Your task to perform on an android device: Open Google Chrome and click the shortcut for Amazon.com Image 0: 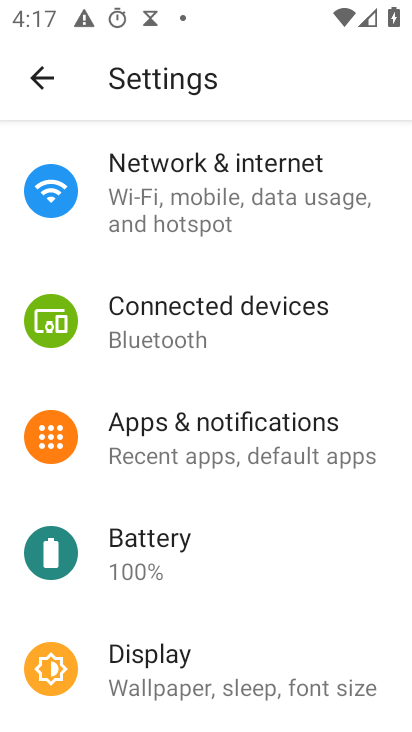
Step 0: click (38, 91)
Your task to perform on an android device: Open Google Chrome and click the shortcut for Amazon.com Image 1: 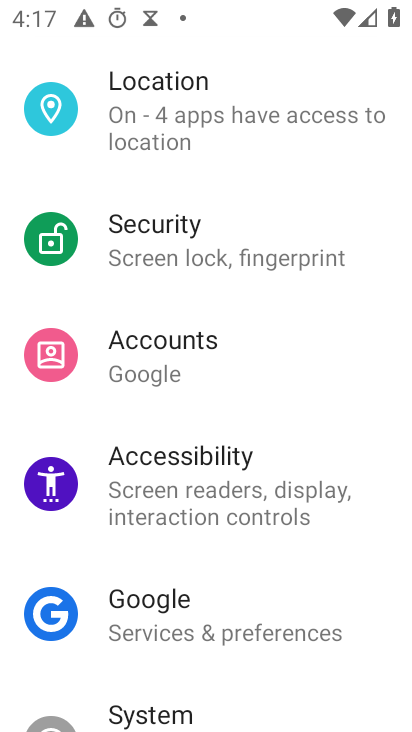
Step 1: press back button
Your task to perform on an android device: Open Google Chrome and click the shortcut for Amazon.com Image 2: 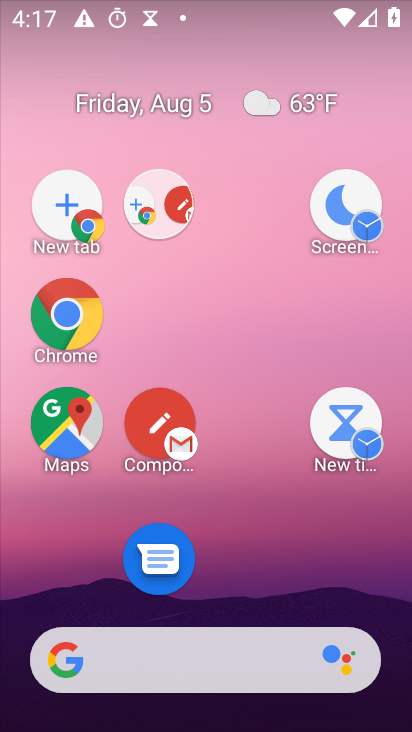
Step 2: drag from (189, 460) to (147, 85)
Your task to perform on an android device: Open Google Chrome and click the shortcut for Amazon.com Image 3: 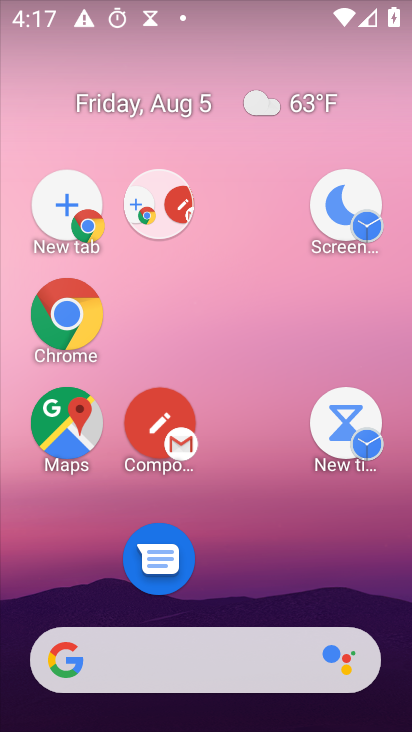
Step 3: drag from (216, 492) to (195, 144)
Your task to perform on an android device: Open Google Chrome and click the shortcut for Amazon.com Image 4: 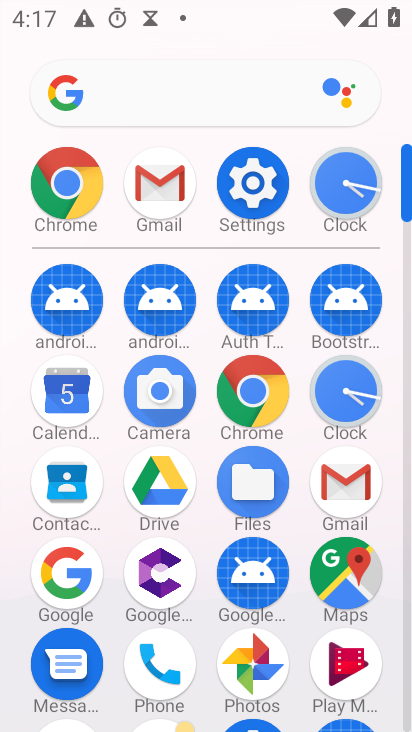
Step 4: drag from (197, 374) to (156, 219)
Your task to perform on an android device: Open Google Chrome and click the shortcut for Amazon.com Image 5: 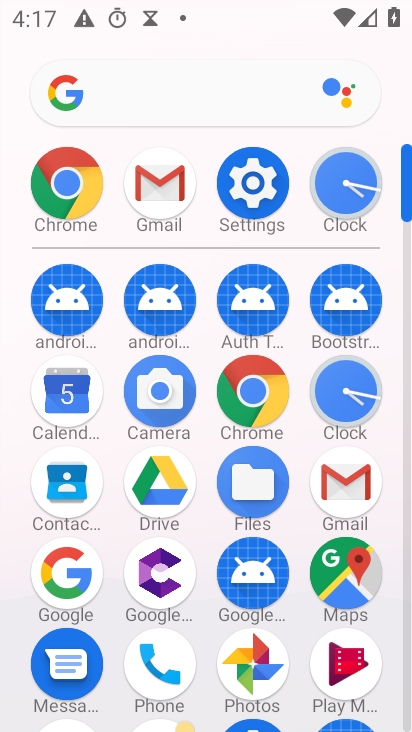
Step 5: click (79, 193)
Your task to perform on an android device: Open Google Chrome and click the shortcut for Amazon.com Image 6: 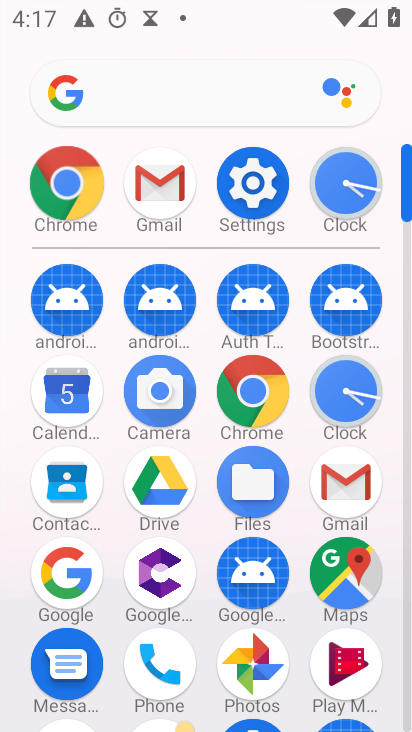
Step 6: click (79, 193)
Your task to perform on an android device: Open Google Chrome and click the shortcut for Amazon.com Image 7: 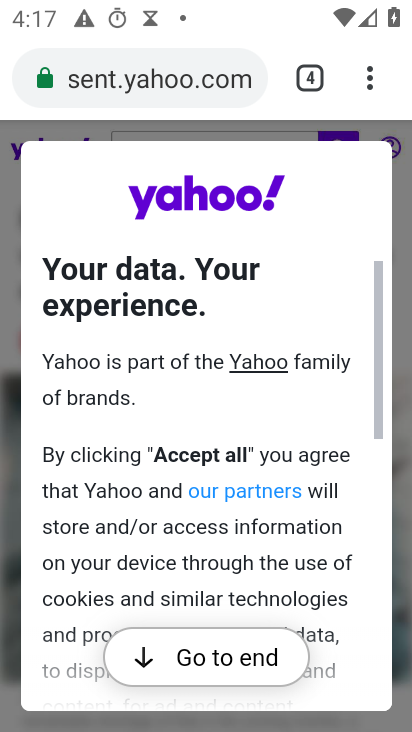
Step 7: click (359, 75)
Your task to perform on an android device: Open Google Chrome and click the shortcut for Amazon.com Image 8: 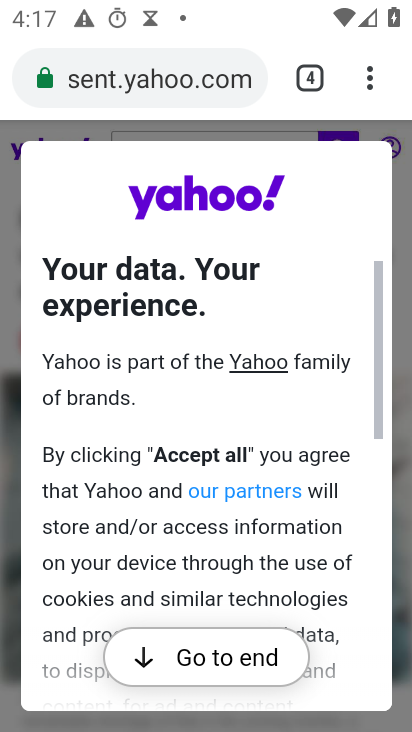
Step 8: drag from (365, 73) to (96, 144)
Your task to perform on an android device: Open Google Chrome and click the shortcut for Amazon.com Image 9: 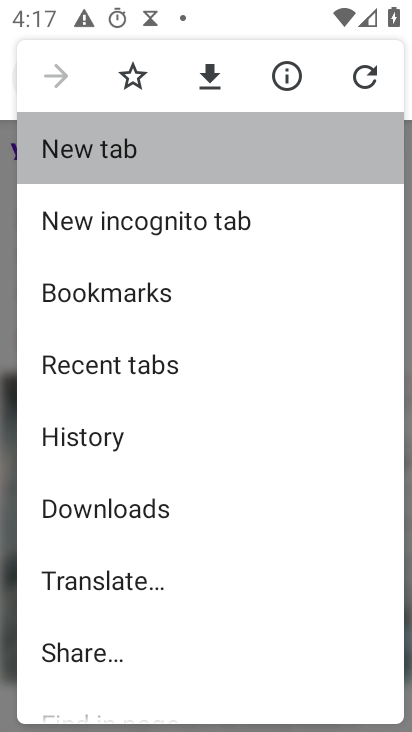
Step 9: click (100, 155)
Your task to perform on an android device: Open Google Chrome and click the shortcut for Amazon.com Image 10: 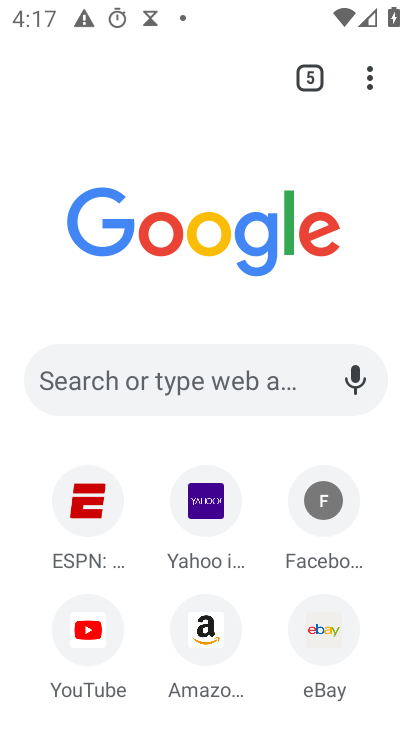
Step 10: click (184, 631)
Your task to perform on an android device: Open Google Chrome and click the shortcut for Amazon.com Image 11: 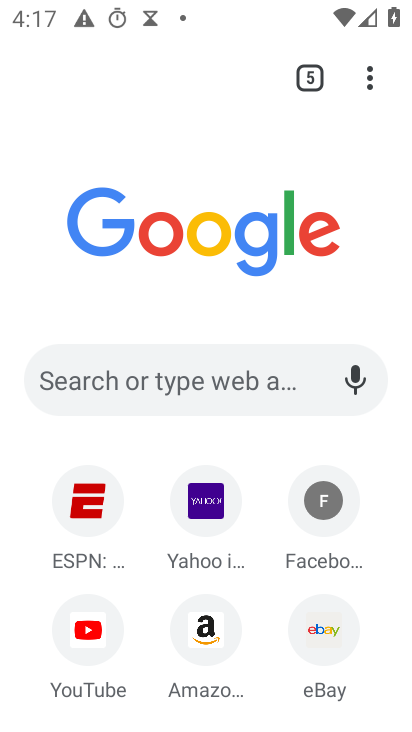
Step 11: click (185, 638)
Your task to perform on an android device: Open Google Chrome and click the shortcut for Amazon.com Image 12: 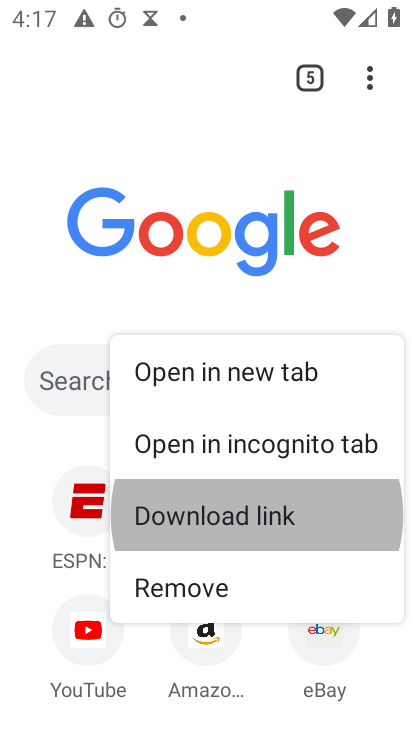
Step 12: click (183, 629)
Your task to perform on an android device: Open Google Chrome and click the shortcut for Amazon.com Image 13: 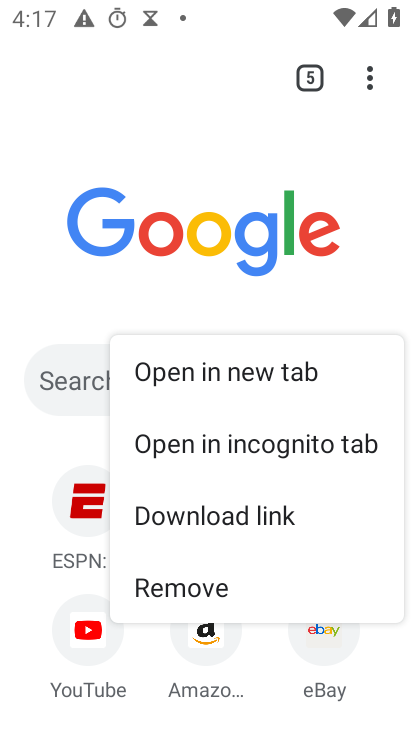
Step 13: click (194, 628)
Your task to perform on an android device: Open Google Chrome and click the shortcut for Amazon.com Image 14: 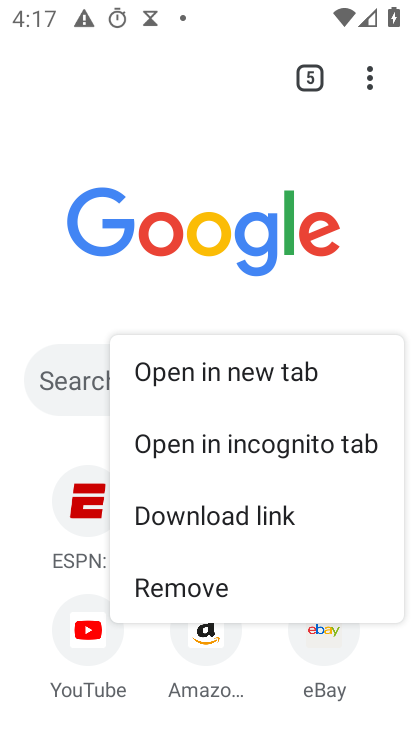
Step 14: click (194, 622)
Your task to perform on an android device: Open Google Chrome and click the shortcut for Amazon.com Image 15: 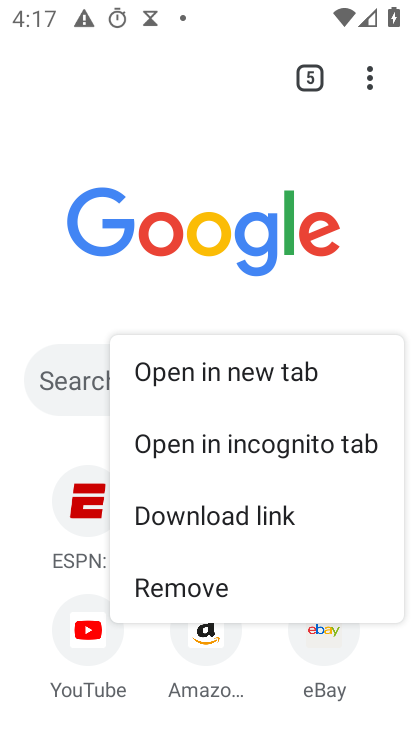
Step 15: click (222, 644)
Your task to perform on an android device: Open Google Chrome and click the shortcut for Amazon.com Image 16: 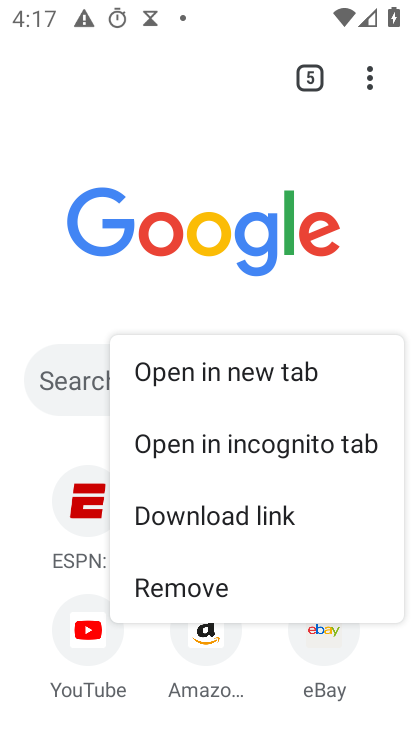
Step 16: click (223, 643)
Your task to perform on an android device: Open Google Chrome and click the shortcut for Amazon.com Image 17: 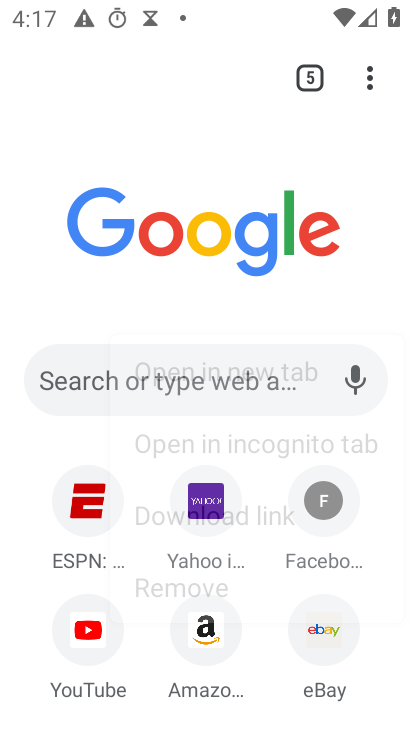
Step 17: click (203, 622)
Your task to perform on an android device: Open Google Chrome and click the shortcut for Amazon.com Image 18: 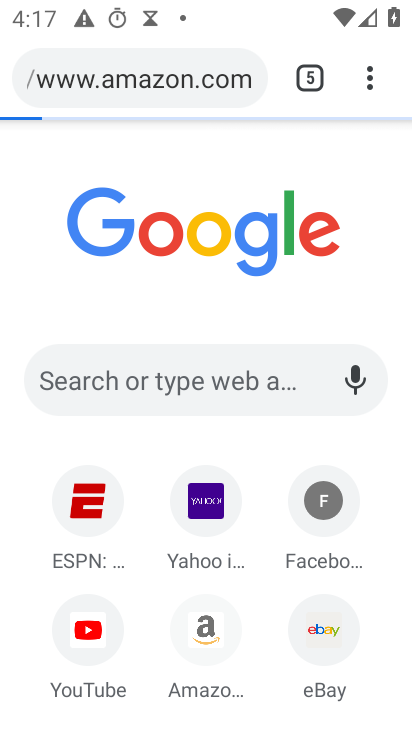
Step 18: task complete